Your task to perform on an android device: Go to privacy settings Image 0: 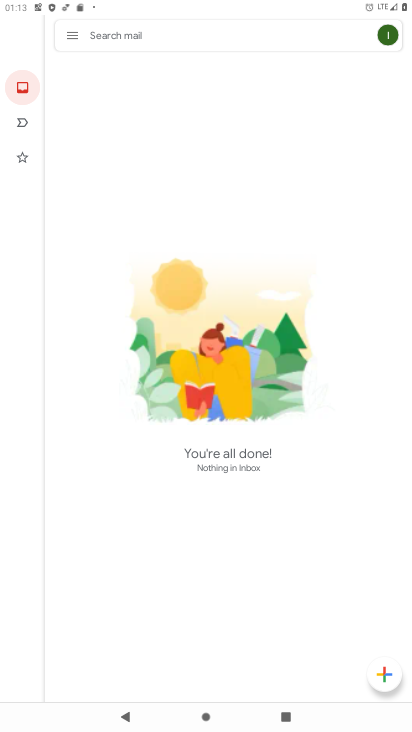
Step 0: press home button
Your task to perform on an android device: Go to privacy settings Image 1: 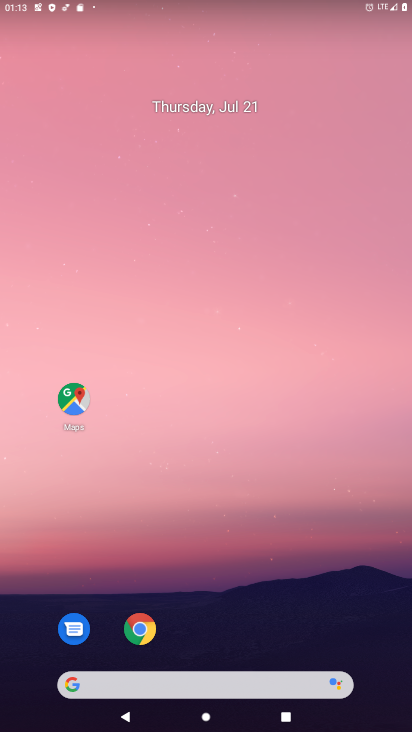
Step 1: drag from (345, 611) to (253, 118)
Your task to perform on an android device: Go to privacy settings Image 2: 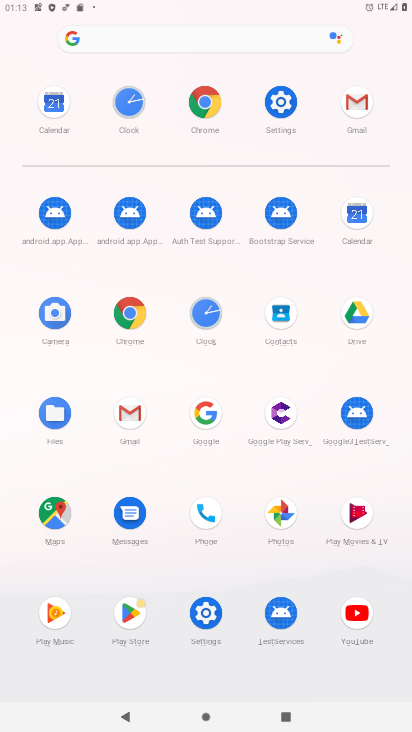
Step 2: click (286, 86)
Your task to perform on an android device: Go to privacy settings Image 3: 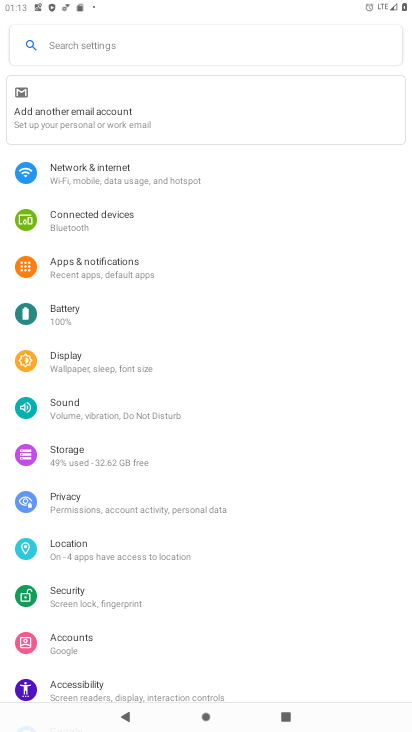
Step 3: click (84, 512)
Your task to perform on an android device: Go to privacy settings Image 4: 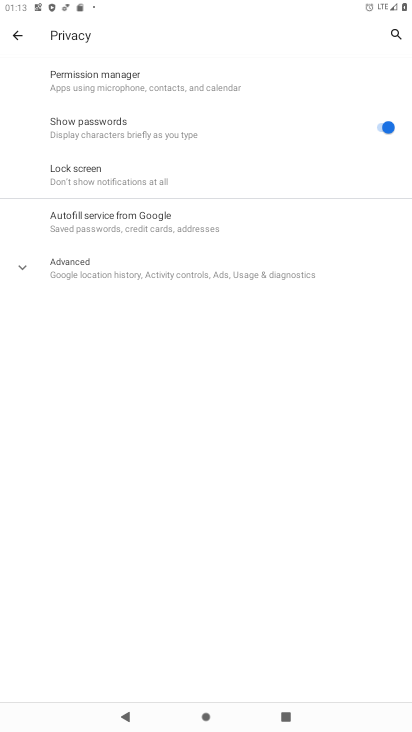
Step 4: task complete